Your task to perform on an android device: Search for "asus rog" on walmart, select the first entry, add it to the cart, then select checkout. Image 0: 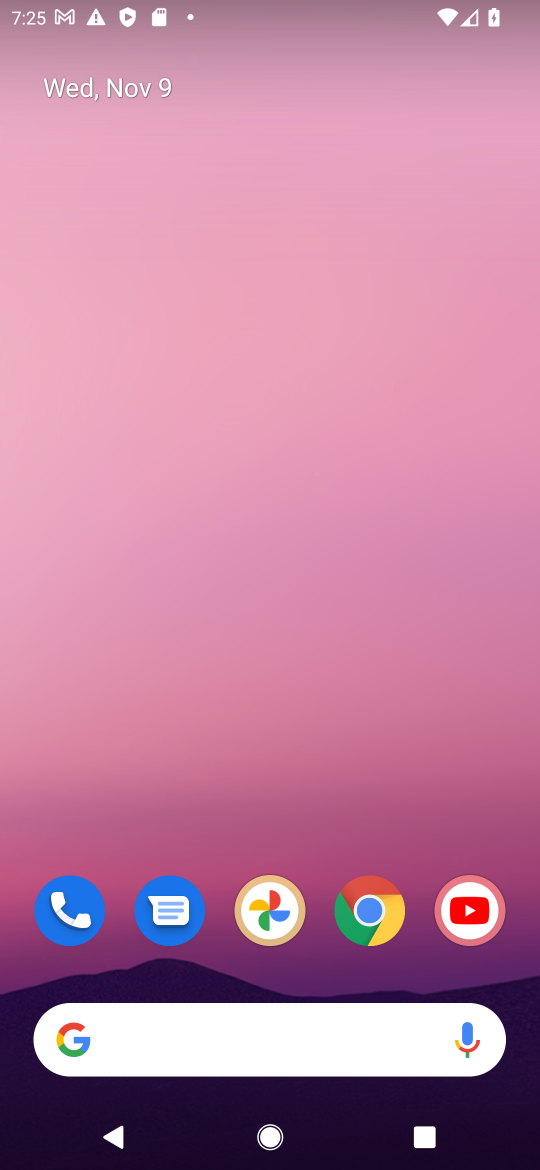
Step 0: click (371, 917)
Your task to perform on an android device: Search for "asus rog" on walmart, select the first entry, add it to the cart, then select checkout. Image 1: 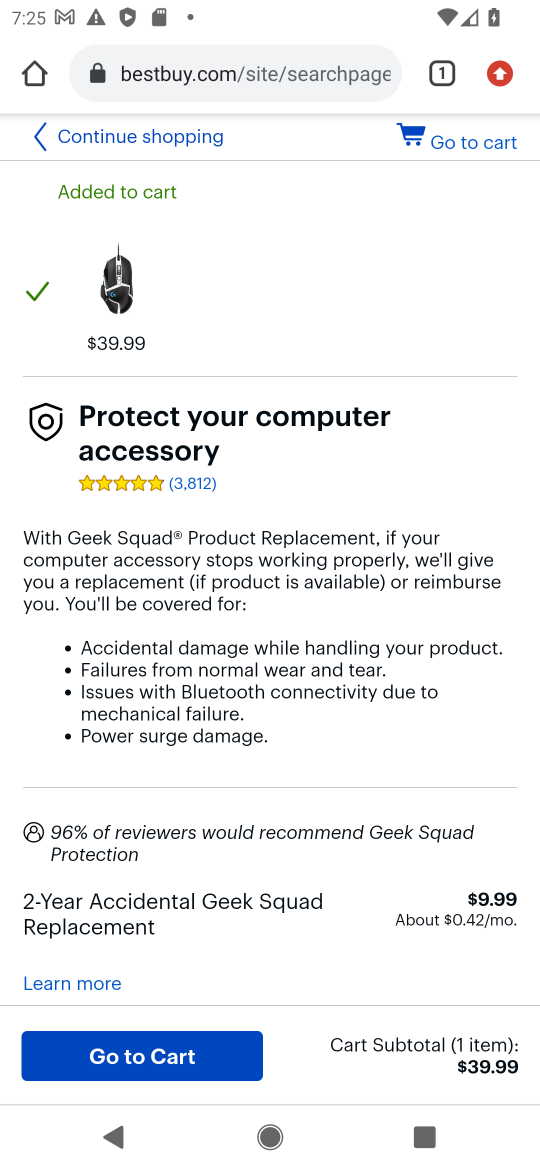
Step 1: click (219, 81)
Your task to perform on an android device: Search for "asus rog" on walmart, select the first entry, add it to the cart, then select checkout. Image 2: 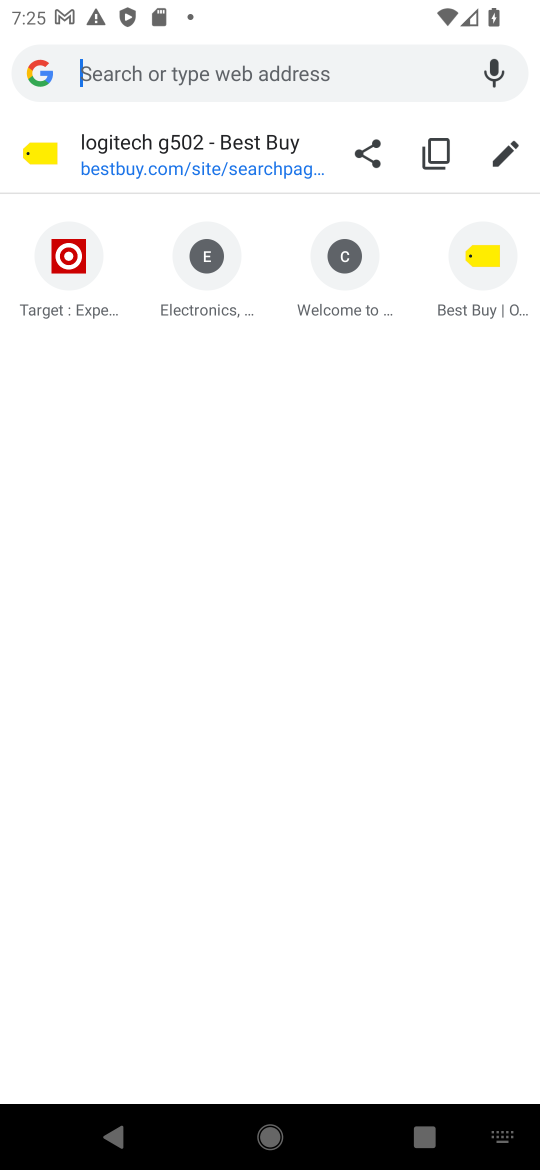
Step 2: type "walmart.com"
Your task to perform on an android device: Search for "asus rog" on walmart, select the first entry, add it to the cart, then select checkout. Image 3: 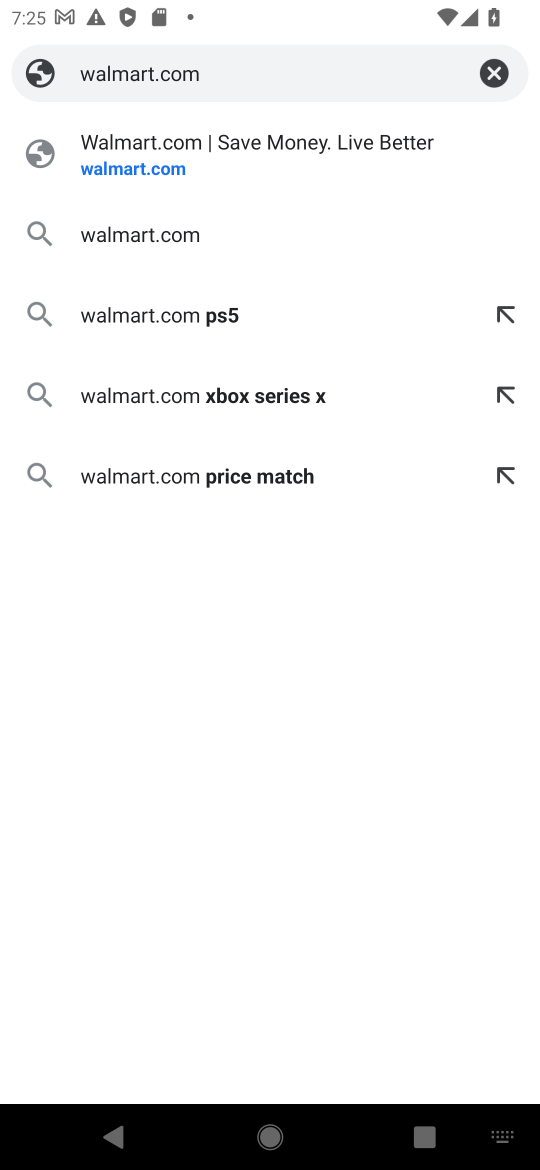
Step 3: click (122, 157)
Your task to perform on an android device: Search for "asus rog" on walmart, select the first entry, add it to the cart, then select checkout. Image 4: 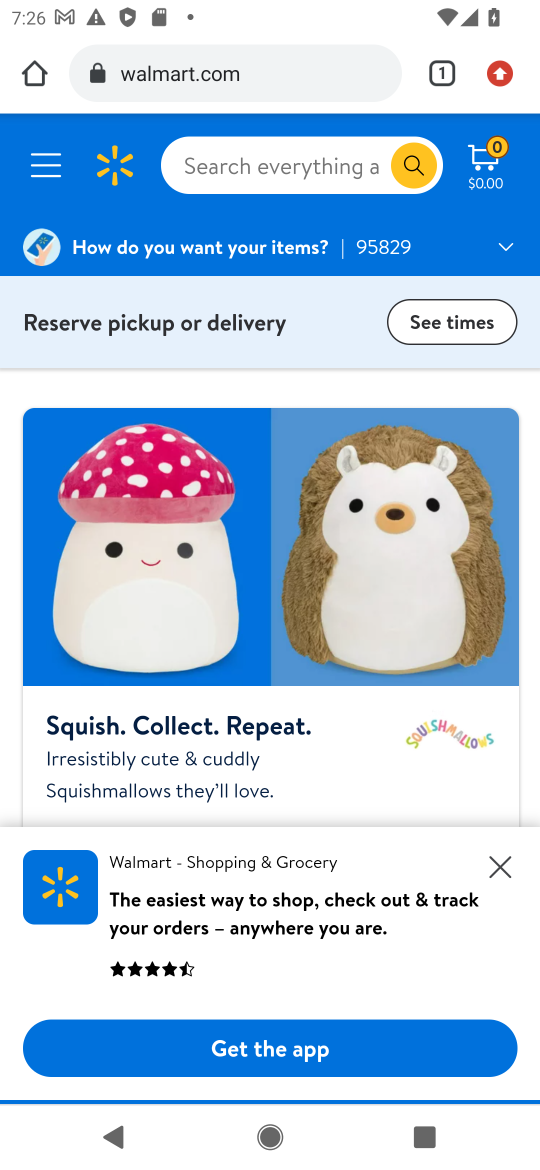
Step 4: click (259, 172)
Your task to perform on an android device: Search for "asus rog" on walmart, select the first entry, add it to the cart, then select checkout. Image 5: 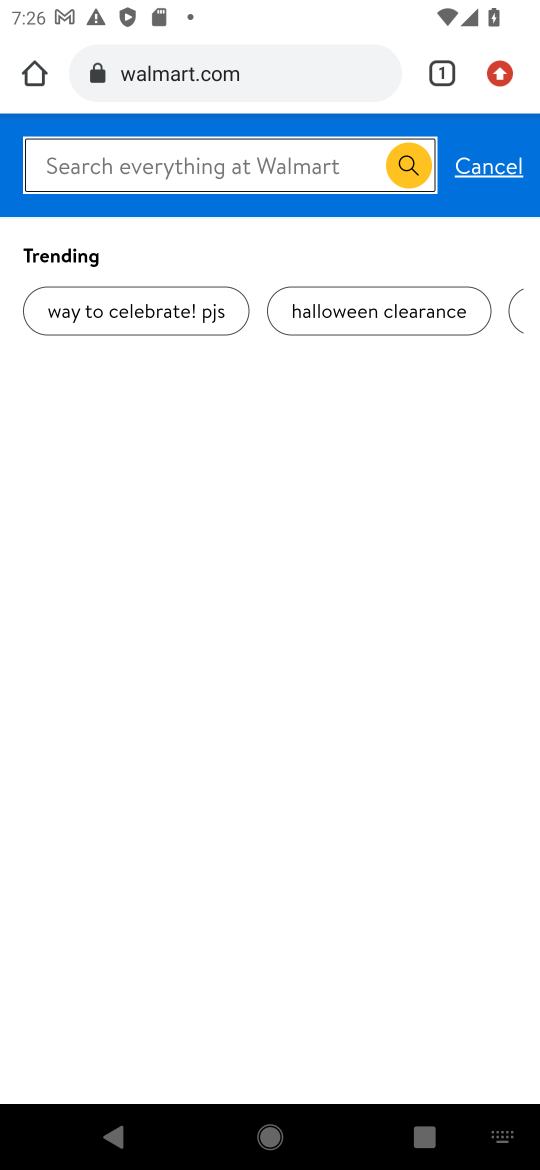
Step 5: type "asus rog"
Your task to perform on an android device: Search for "asus rog" on walmart, select the first entry, add it to the cart, then select checkout. Image 6: 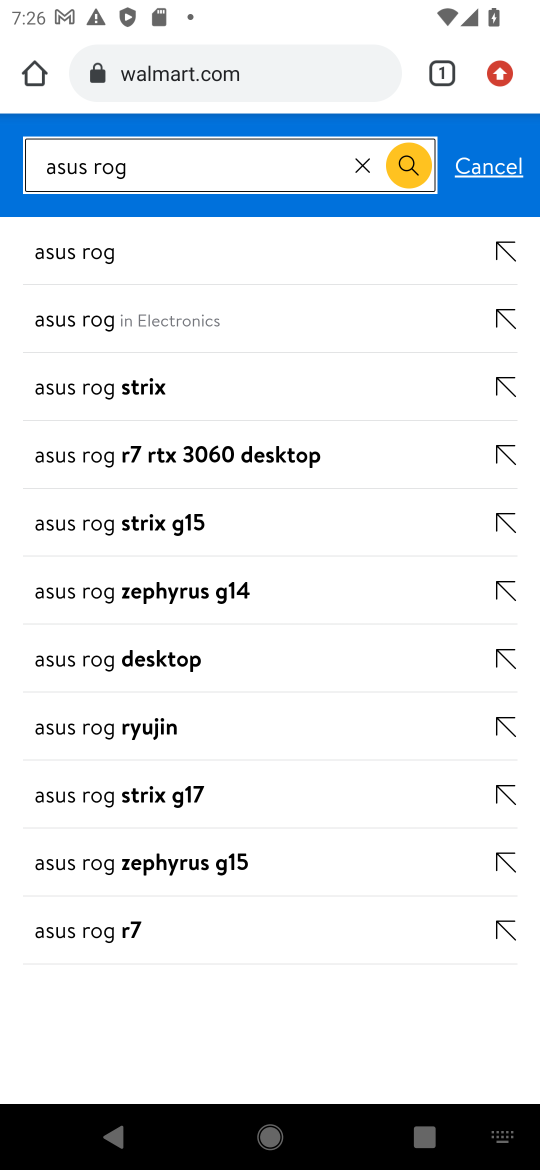
Step 6: click (68, 269)
Your task to perform on an android device: Search for "asus rog" on walmart, select the first entry, add it to the cart, then select checkout. Image 7: 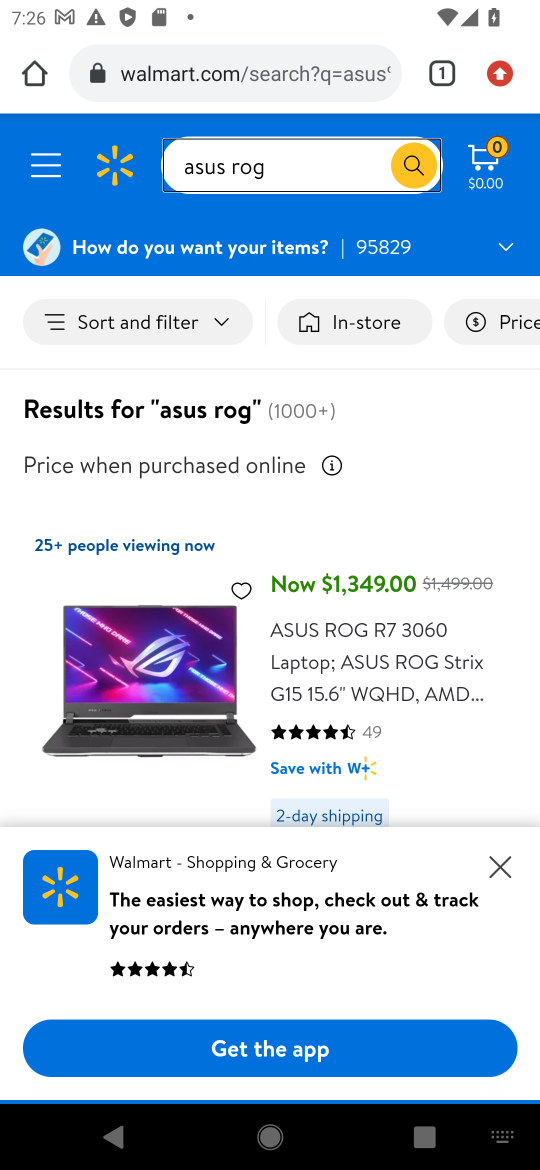
Step 7: drag from (199, 751) to (236, 623)
Your task to perform on an android device: Search for "asus rog" on walmart, select the first entry, add it to the cart, then select checkout. Image 8: 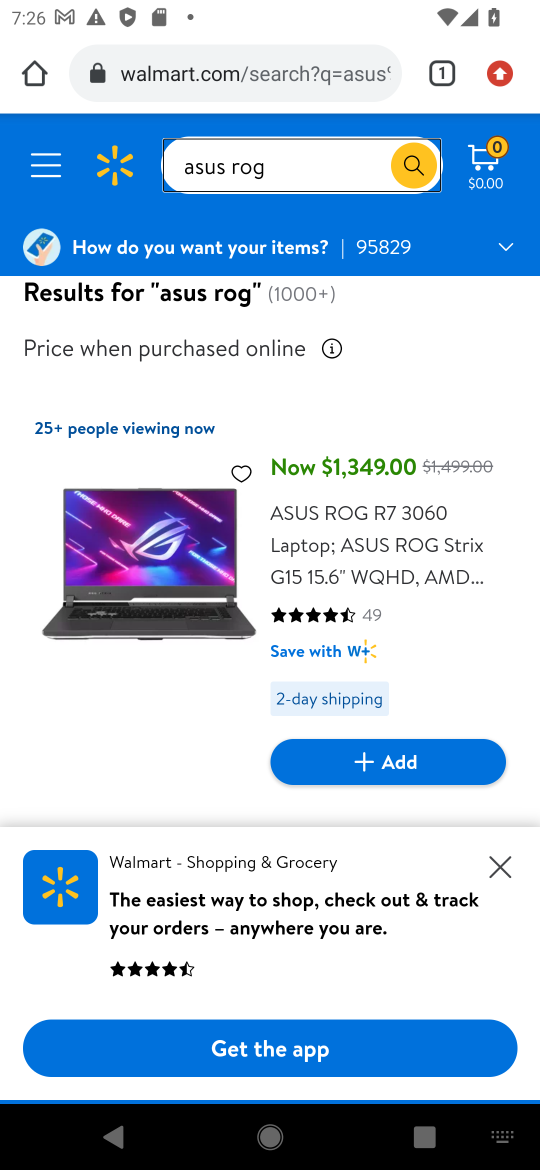
Step 8: click (355, 762)
Your task to perform on an android device: Search for "asus rog" on walmart, select the first entry, add it to the cart, then select checkout. Image 9: 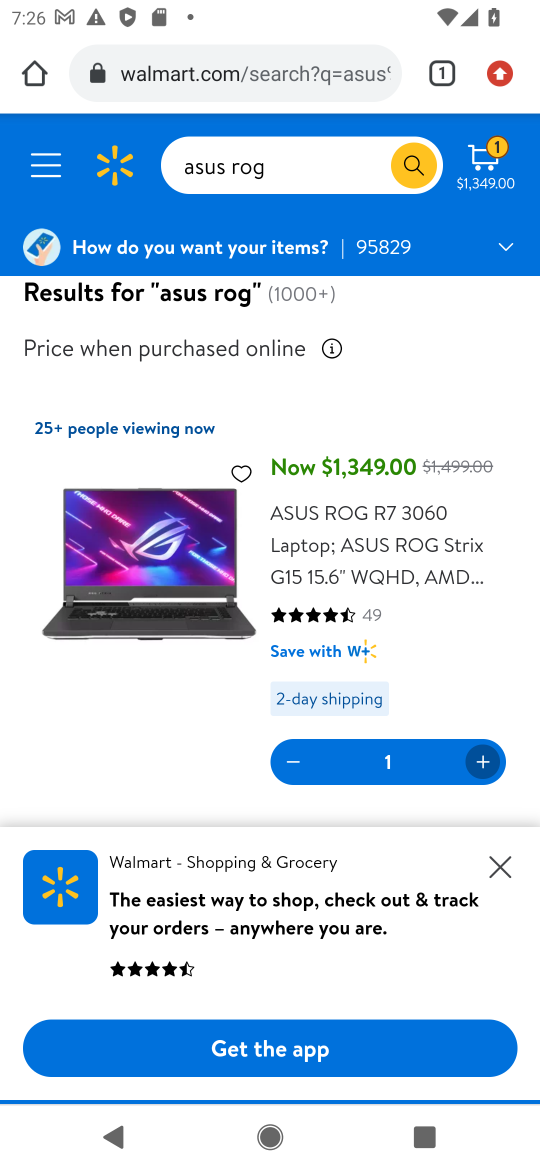
Step 9: click (482, 166)
Your task to perform on an android device: Search for "asus rog" on walmart, select the first entry, add it to the cart, then select checkout. Image 10: 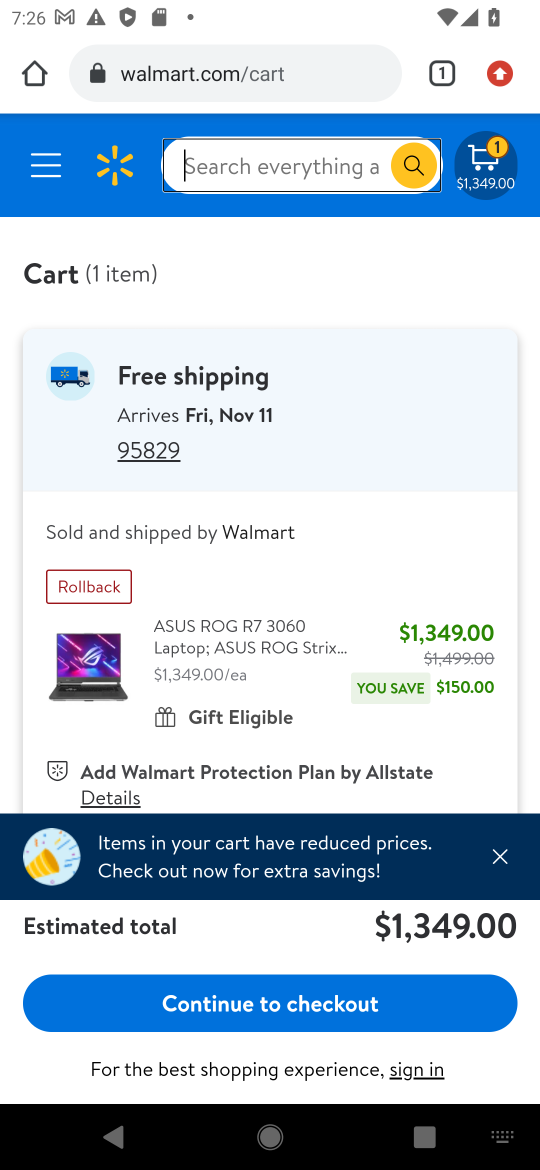
Step 10: click (214, 1016)
Your task to perform on an android device: Search for "asus rog" on walmart, select the first entry, add it to the cart, then select checkout. Image 11: 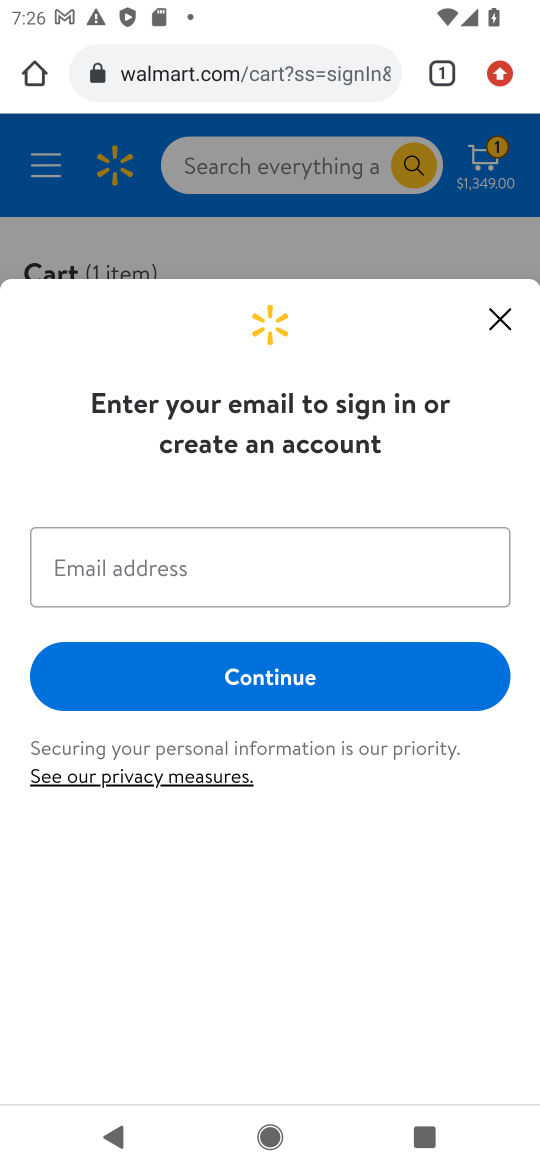
Step 11: task complete